Your task to perform on an android device: turn off notifications in google photos Image 0: 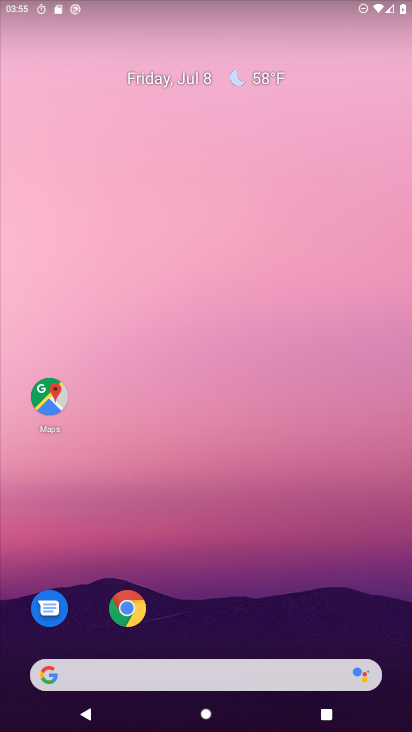
Step 0: drag from (232, 636) to (235, 98)
Your task to perform on an android device: turn off notifications in google photos Image 1: 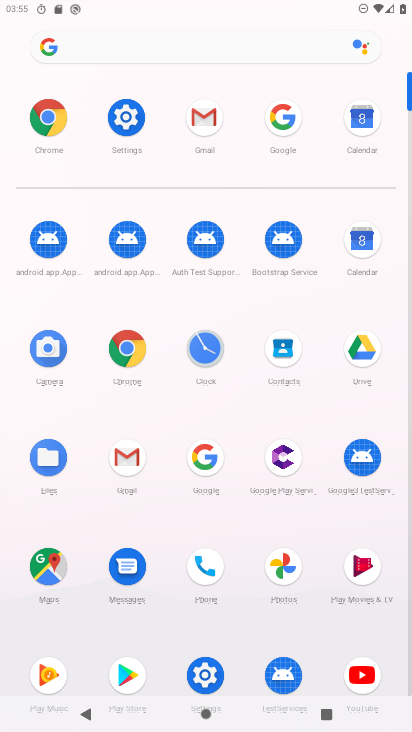
Step 1: click (281, 561)
Your task to perform on an android device: turn off notifications in google photos Image 2: 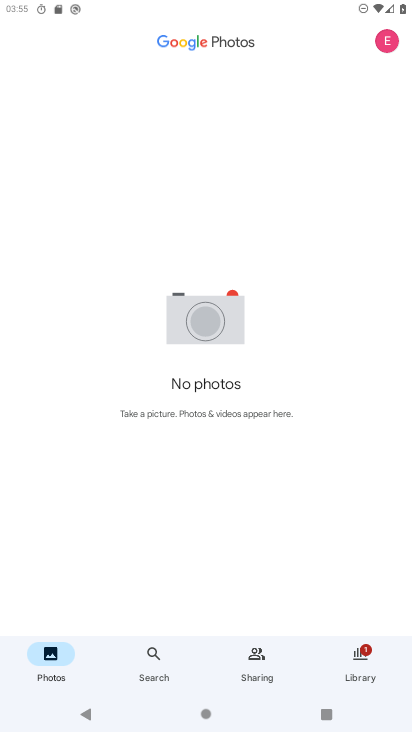
Step 2: click (388, 38)
Your task to perform on an android device: turn off notifications in google photos Image 3: 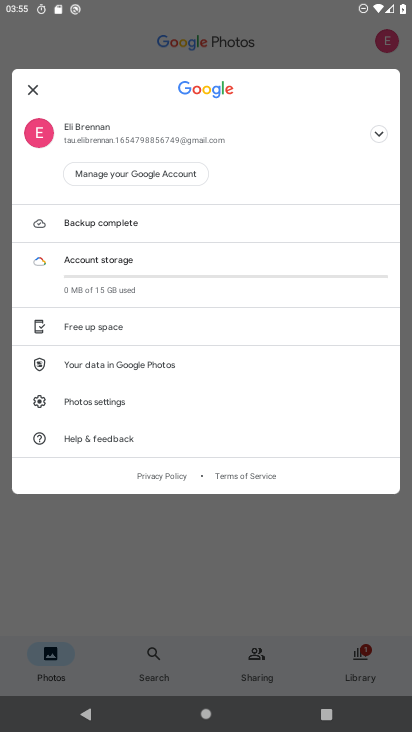
Step 3: click (90, 399)
Your task to perform on an android device: turn off notifications in google photos Image 4: 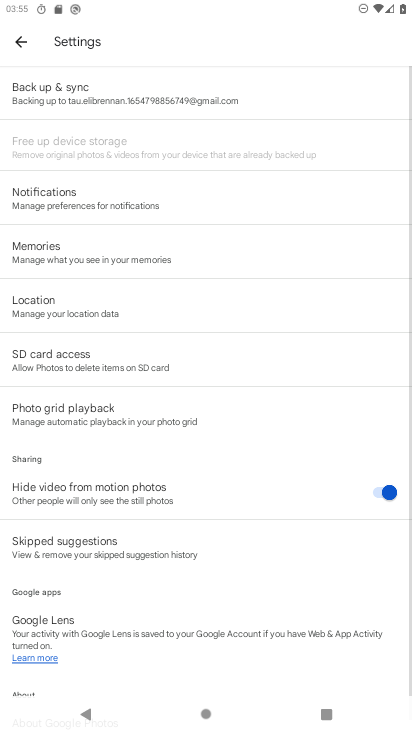
Step 4: click (33, 199)
Your task to perform on an android device: turn off notifications in google photos Image 5: 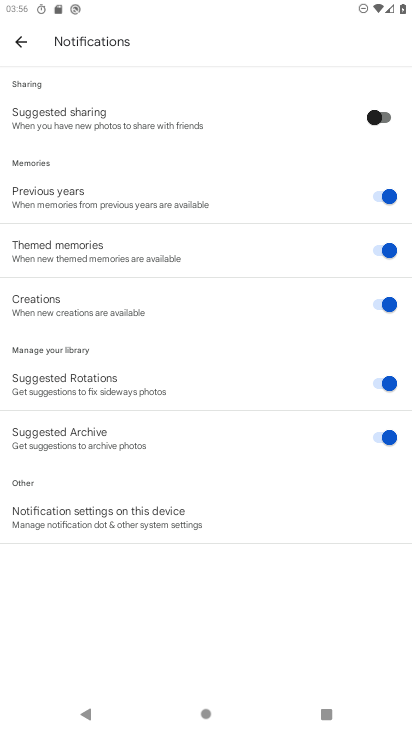
Step 5: click (80, 523)
Your task to perform on an android device: turn off notifications in google photos Image 6: 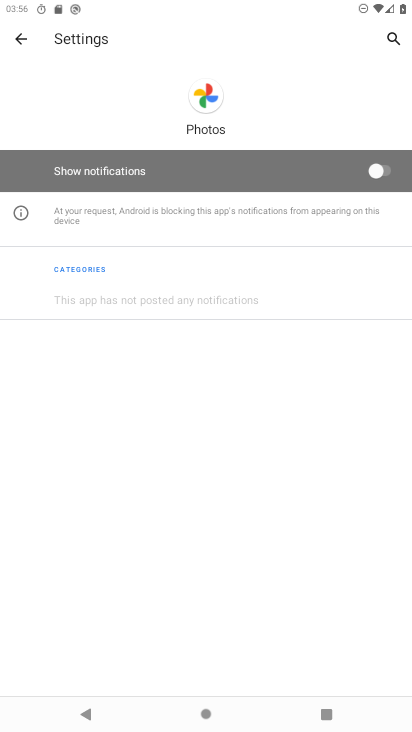
Step 6: task complete